Your task to perform on an android device: When is my next meeting? Image 0: 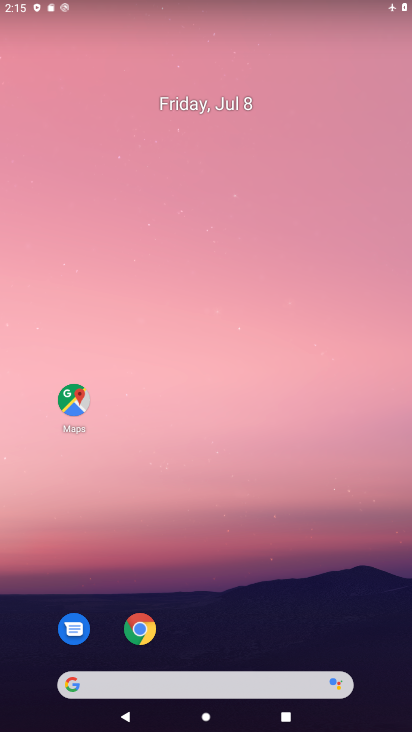
Step 0: drag from (93, 526) to (265, 32)
Your task to perform on an android device: When is my next meeting? Image 1: 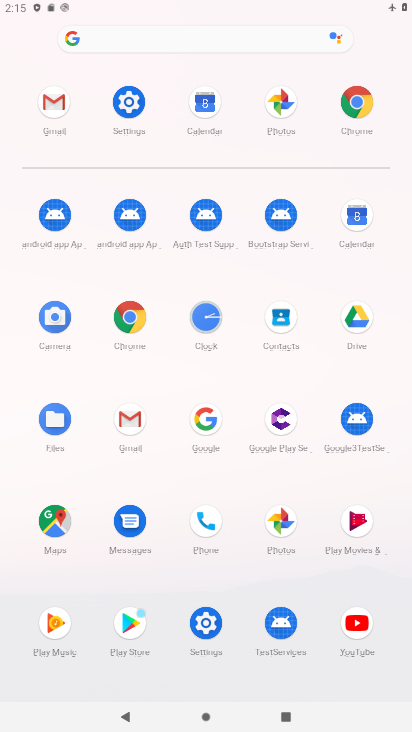
Step 1: click (341, 222)
Your task to perform on an android device: When is my next meeting? Image 2: 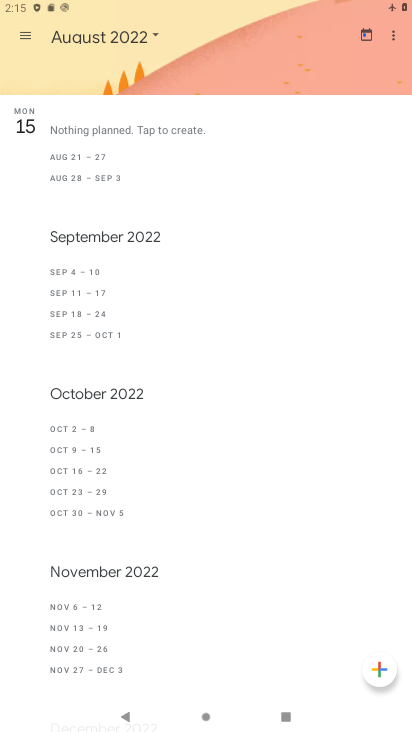
Step 2: click (29, 30)
Your task to perform on an android device: When is my next meeting? Image 3: 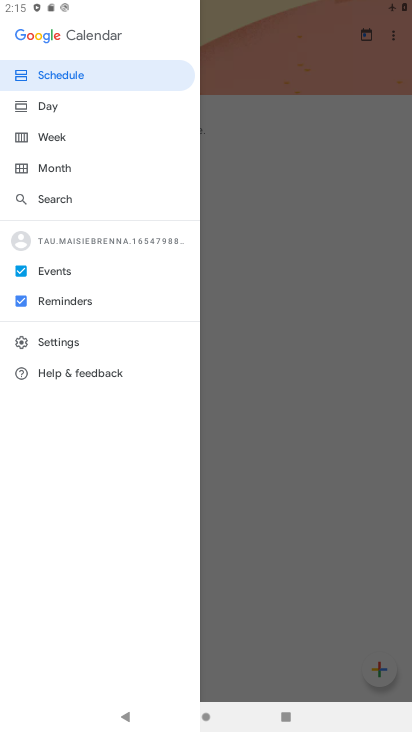
Step 3: click (60, 171)
Your task to perform on an android device: When is my next meeting? Image 4: 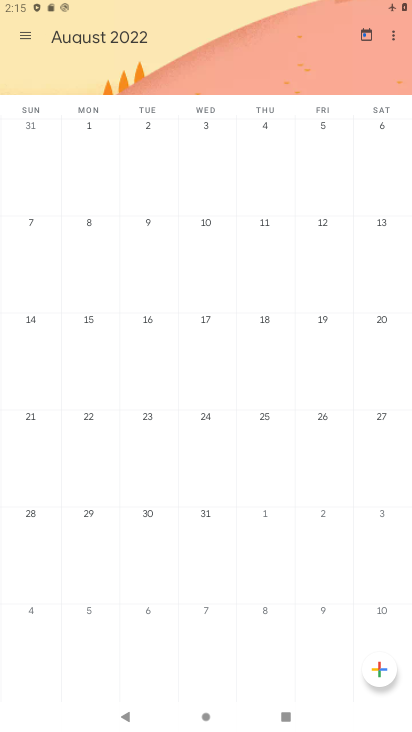
Step 4: task complete